Your task to perform on an android device: Go to display settings Image 0: 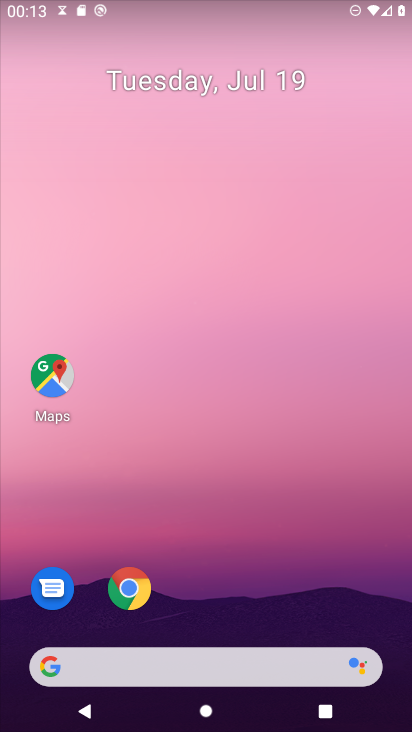
Step 0: press home button
Your task to perform on an android device: Go to display settings Image 1: 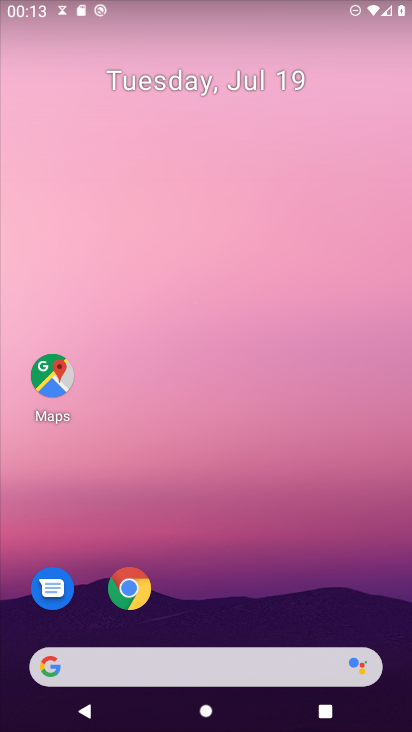
Step 1: drag from (260, 599) to (317, 88)
Your task to perform on an android device: Go to display settings Image 2: 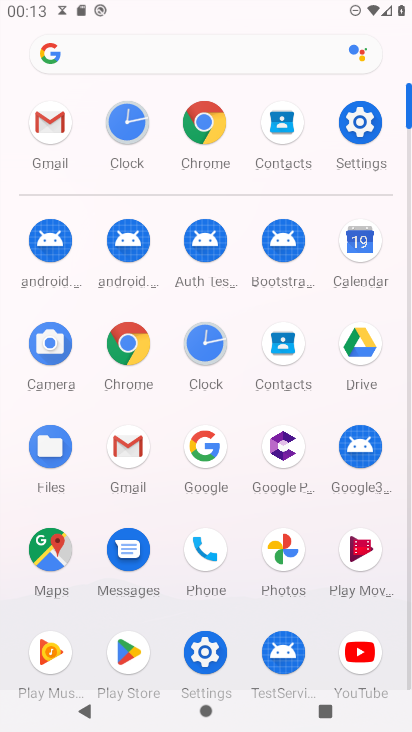
Step 2: click (360, 126)
Your task to perform on an android device: Go to display settings Image 3: 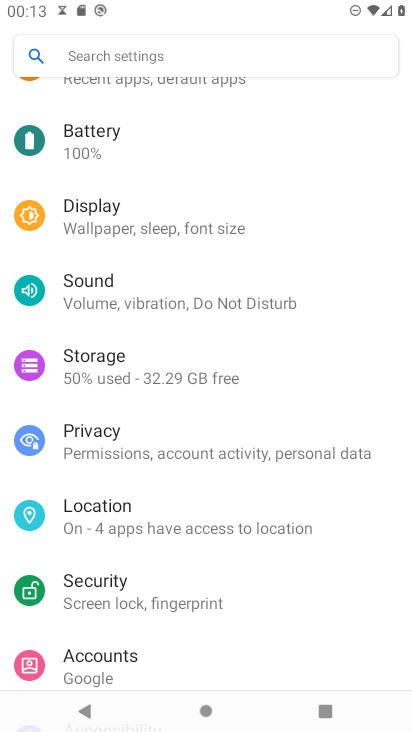
Step 3: click (169, 218)
Your task to perform on an android device: Go to display settings Image 4: 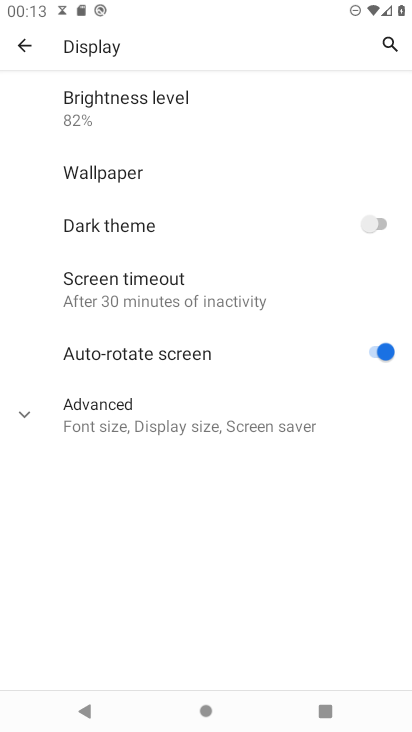
Step 4: task complete